Your task to perform on an android device: toggle improve location accuracy Image 0: 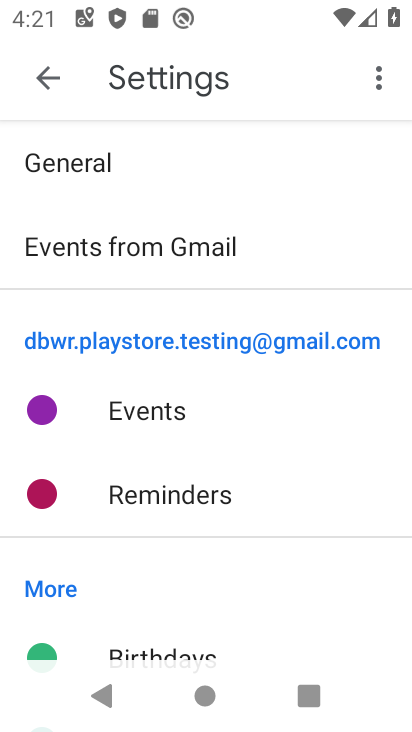
Step 0: press home button
Your task to perform on an android device: toggle improve location accuracy Image 1: 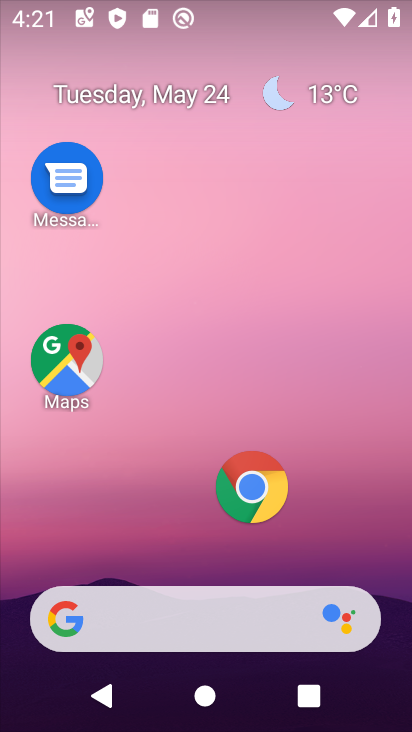
Step 1: drag from (106, 539) to (119, 25)
Your task to perform on an android device: toggle improve location accuracy Image 2: 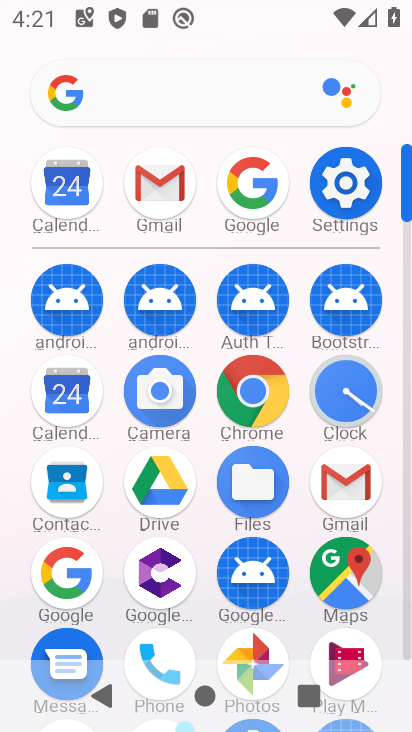
Step 2: click (345, 199)
Your task to perform on an android device: toggle improve location accuracy Image 3: 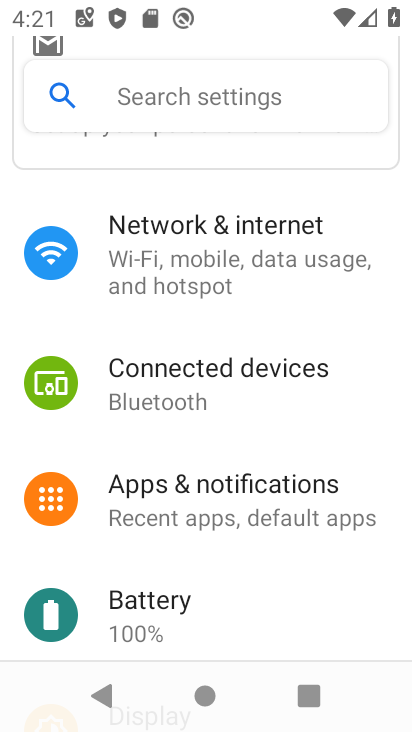
Step 3: drag from (197, 543) to (137, 114)
Your task to perform on an android device: toggle improve location accuracy Image 4: 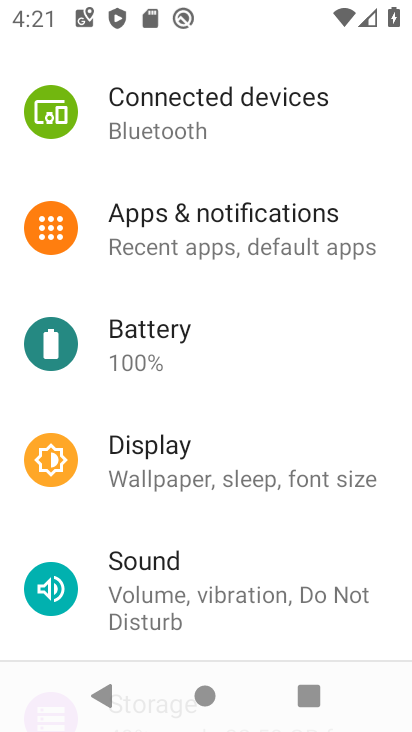
Step 4: click (197, 275)
Your task to perform on an android device: toggle improve location accuracy Image 5: 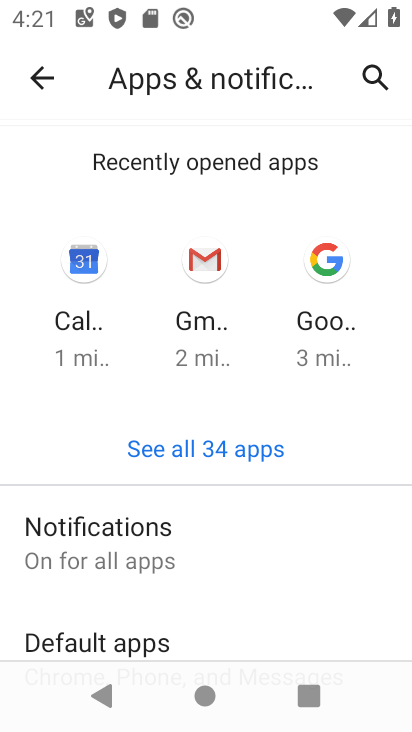
Step 5: click (30, 84)
Your task to perform on an android device: toggle improve location accuracy Image 6: 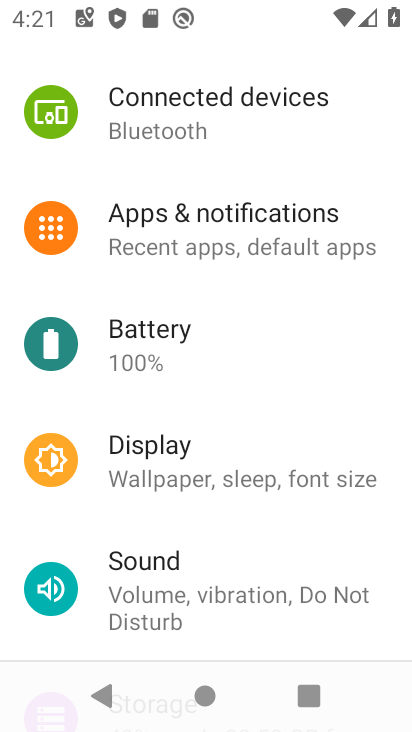
Step 6: drag from (226, 612) to (181, 162)
Your task to perform on an android device: toggle improve location accuracy Image 7: 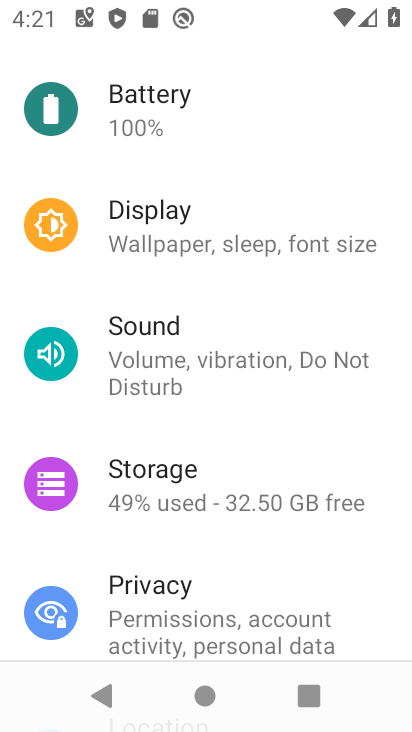
Step 7: drag from (178, 563) to (171, 235)
Your task to perform on an android device: toggle improve location accuracy Image 8: 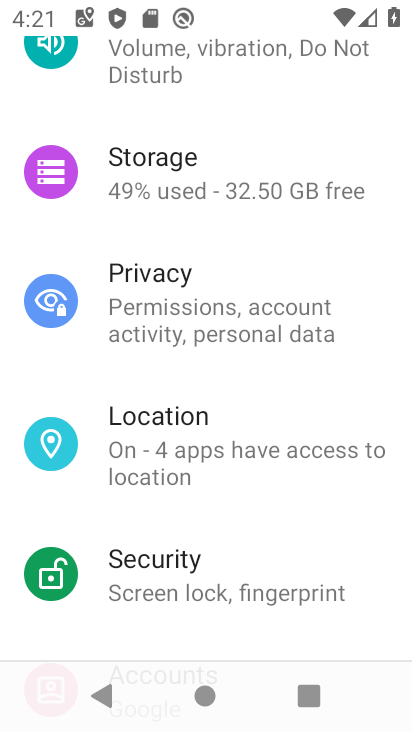
Step 8: click (121, 478)
Your task to perform on an android device: toggle improve location accuracy Image 9: 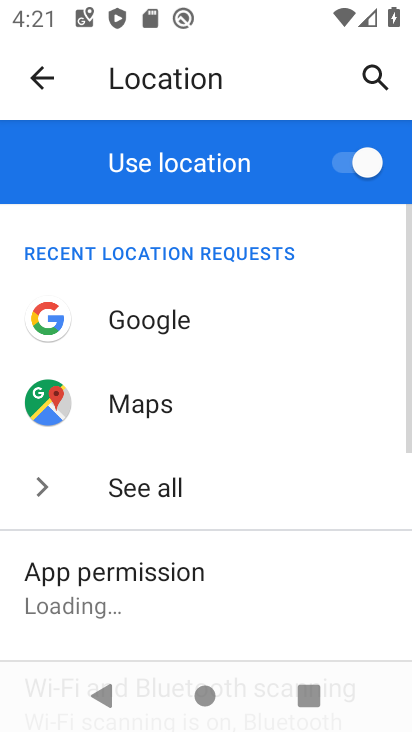
Step 9: drag from (188, 618) to (160, 107)
Your task to perform on an android device: toggle improve location accuracy Image 10: 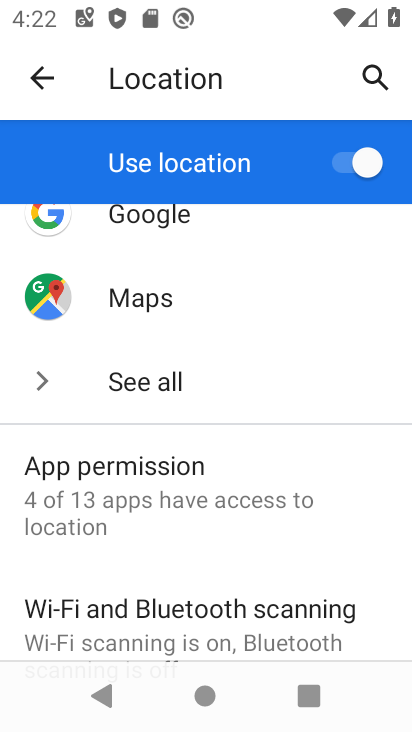
Step 10: drag from (210, 616) to (168, 327)
Your task to perform on an android device: toggle improve location accuracy Image 11: 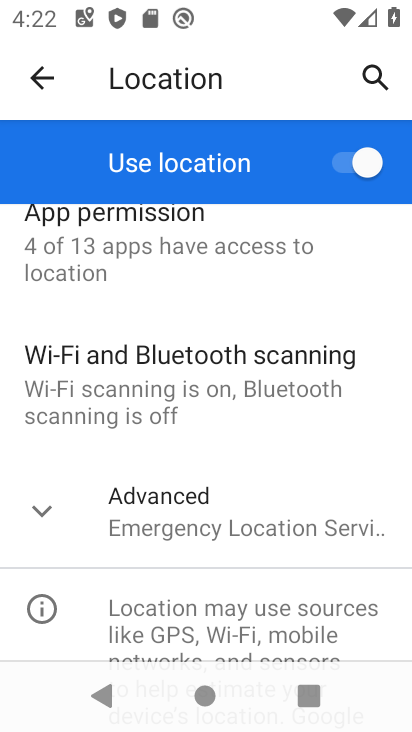
Step 11: click (139, 537)
Your task to perform on an android device: toggle improve location accuracy Image 12: 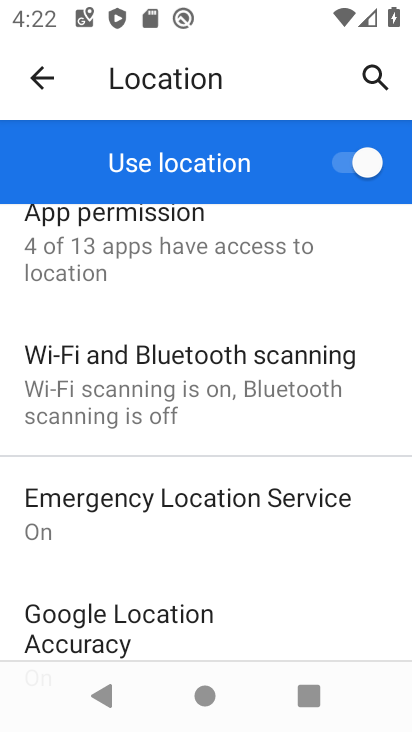
Step 12: click (190, 633)
Your task to perform on an android device: toggle improve location accuracy Image 13: 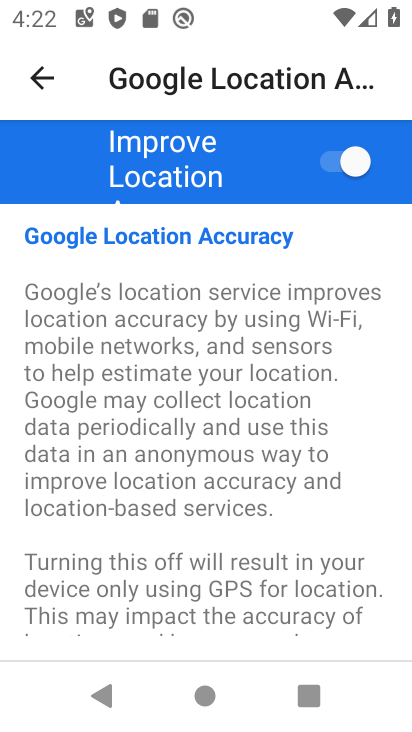
Step 13: click (329, 160)
Your task to perform on an android device: toggle improve location accuracy Image 14: 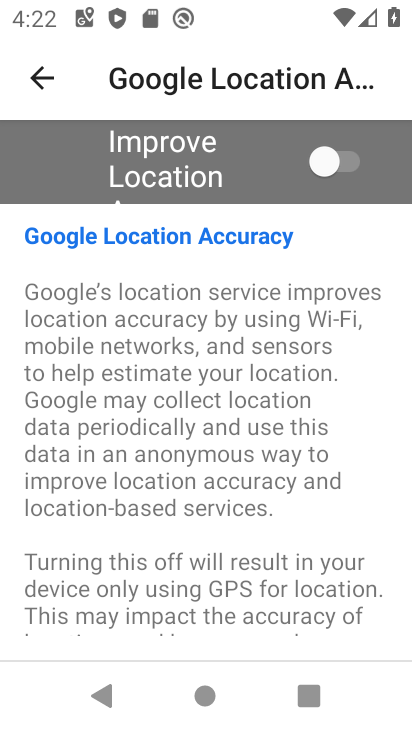
Step 14: task complete